Your task to perform on an android device: What's the weather going to be this weekend? Image 0: 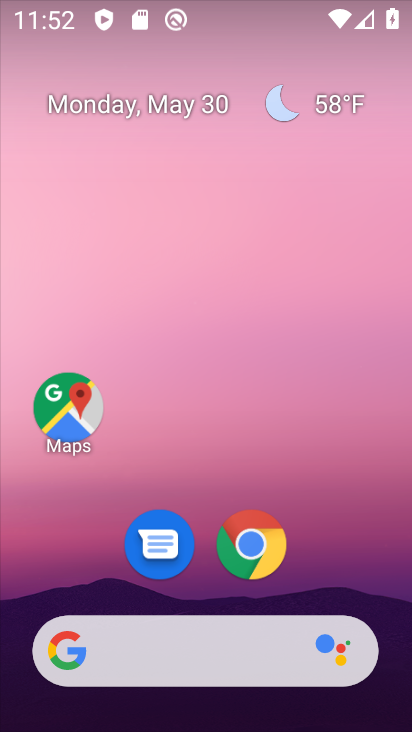
Step 0: task complete